Your task to perform on an android device: open sync settings in chrome Image 0: 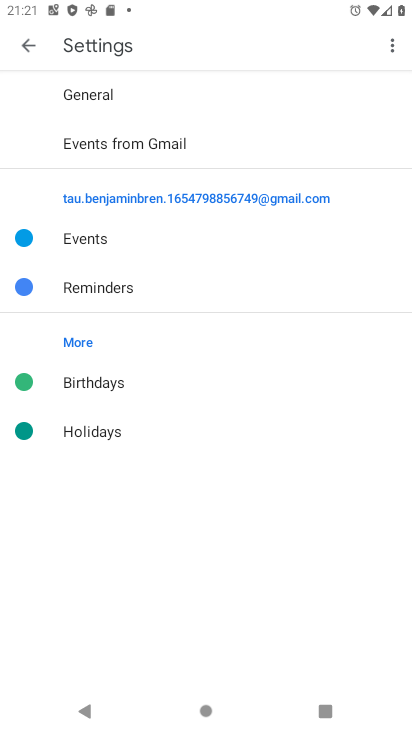
Step 0: press home button
Your task to perform on an android device: open sync settings in chrome Image 1: 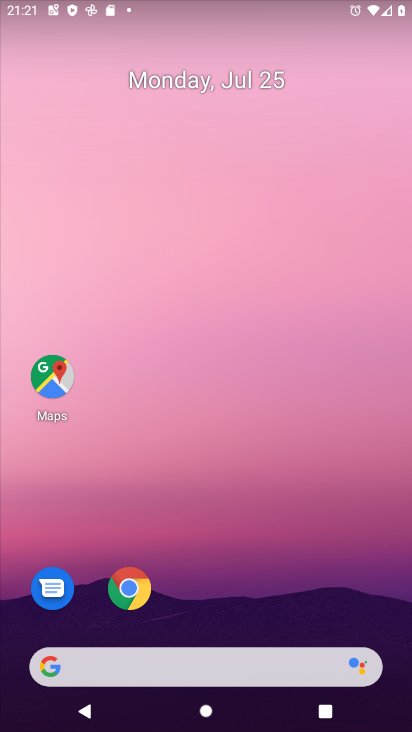
Step 1: drag from (240, 651) to (239, 159)
Your task to perform on an android device: open sync settings in chrome Image 2: 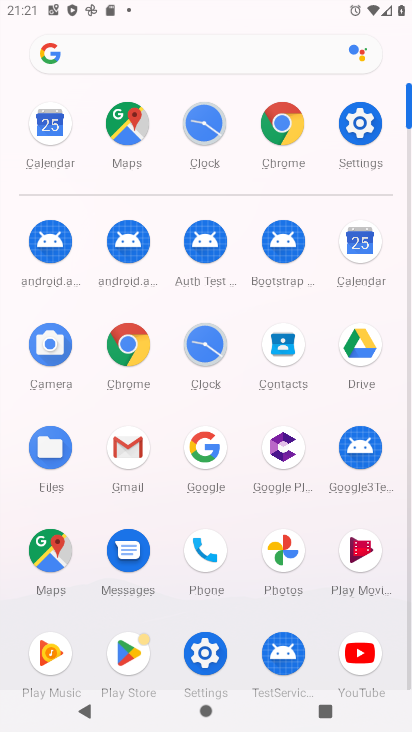
Step 2: click (125, 343)
Your task to perform on an android device: open sync settings in chrome Image 3: 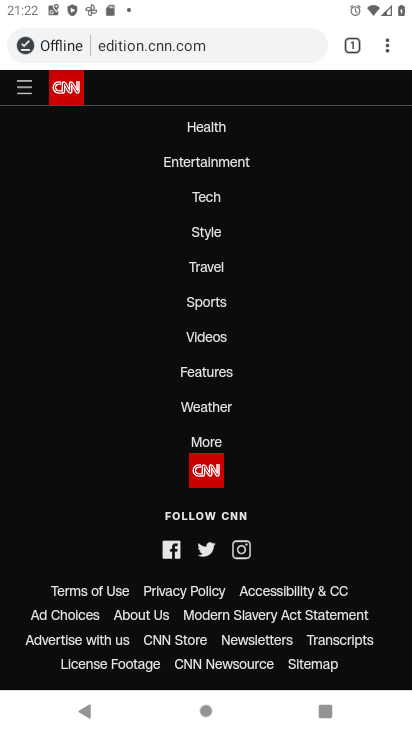
Step 3: click (352, 47)
Your task to perform on an android device: open sync settings in chrome Image 4: 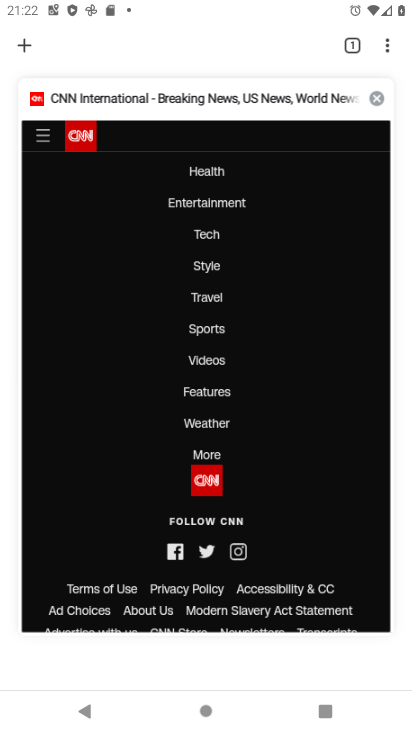
Step 4: click (374, 95)
Your task to perform on an android device: open sync settings in chrome Image 5: 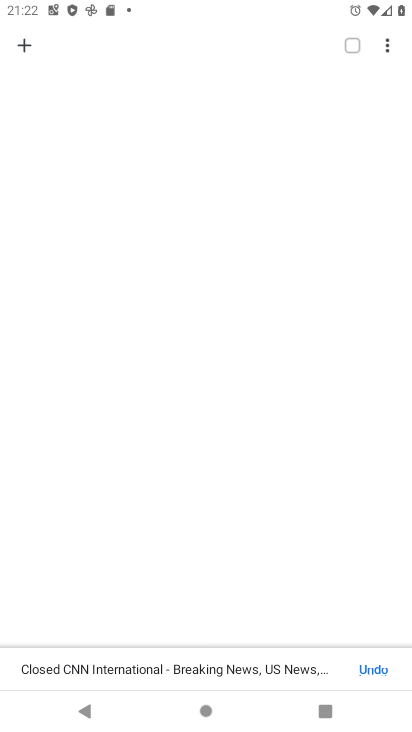
Step 5: click (390, 45)
Your task to perform on an android device: open sync settings in chrome Image 6: 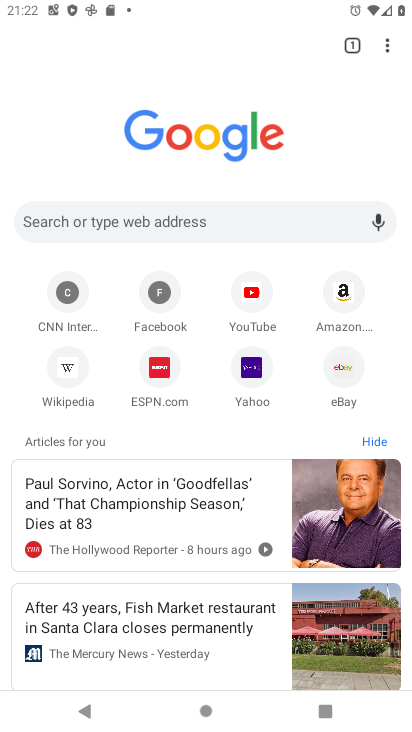
Step 6: click (385, 47)
Your task to perform on an android device: open sync settings in chrome Image 7: 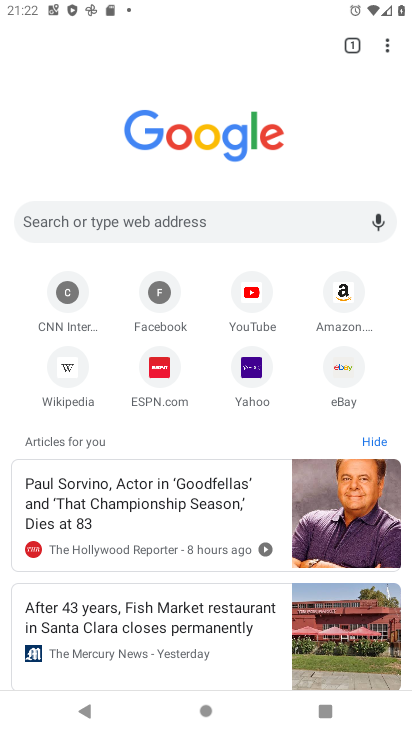
Step 7: click (382, 38)
Your task to perform on an android device: open sync settings in chrome Image 8: 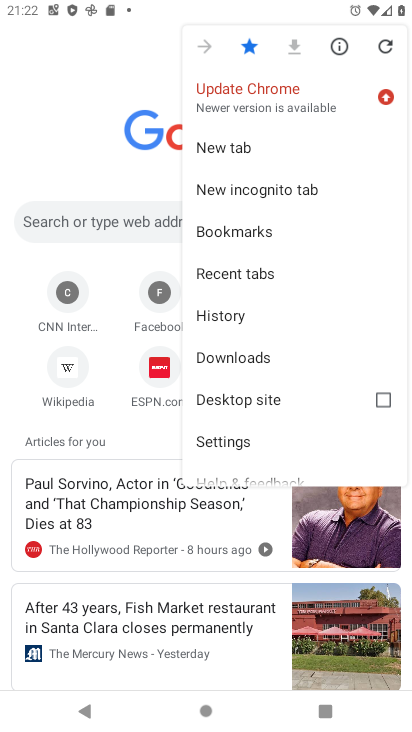
Step 8: click (244, 441)
Your task to perform on an android device: open sync settings in chrome Image 9: 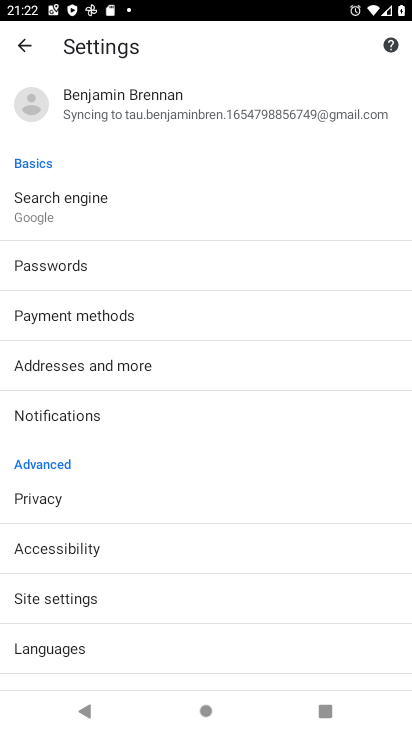
Step 9: click (132, 103)
Your task to perform on an android device: open sync settings in chrome Image 10: 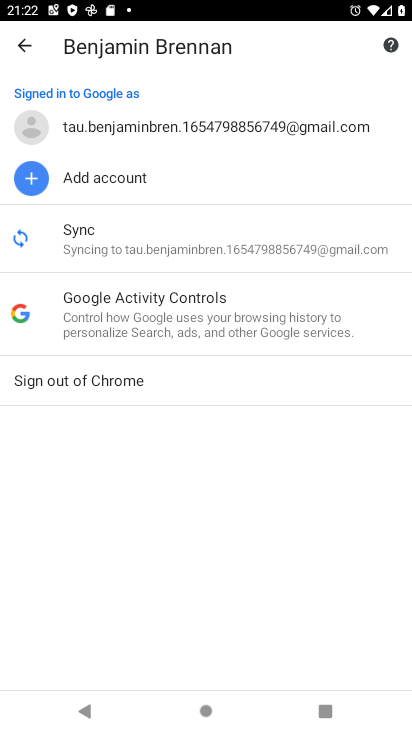
Step 10: click (80, 244)
Your task to perform on an android device: open sync settings in chrome Image 11: 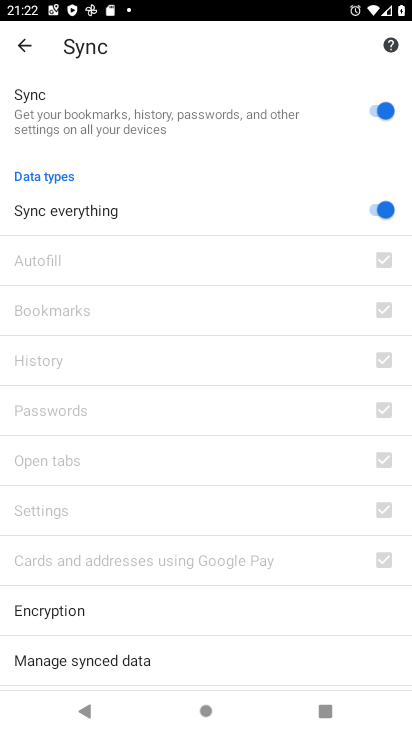
Step 11: task complete